Your task to perform on an android device: toggle notifications settings in the gmail app Image 0: 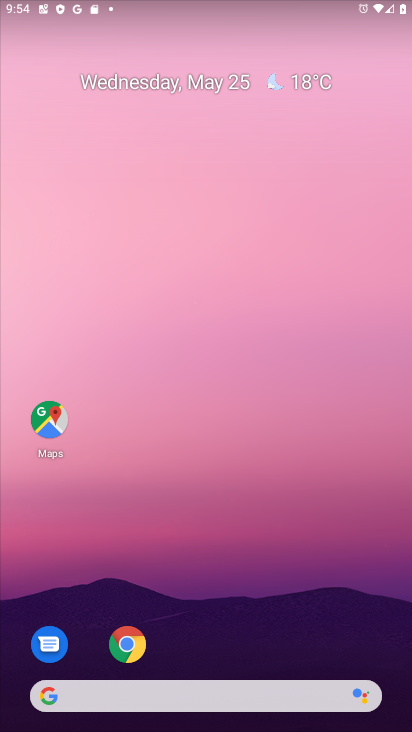
Step 0: drag from (216, 650) to (245, 165)
Your task to perform on an android device: toggle notifications settings in the gmail app Image 1: 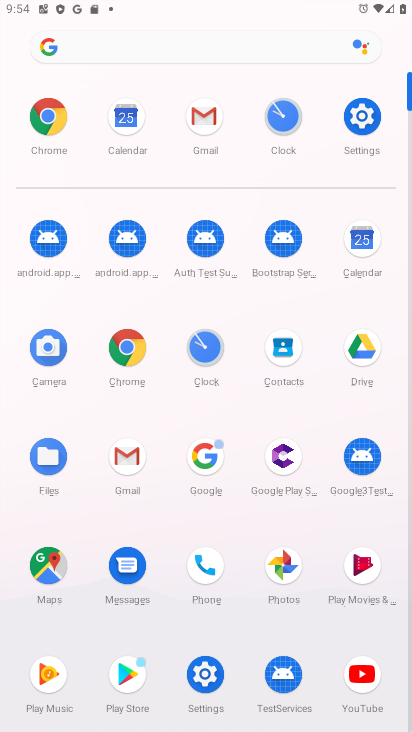
Step 1: click (121, 446)
Your task to perform on an android device: toggle notifications settings in the gmail app Image 2: 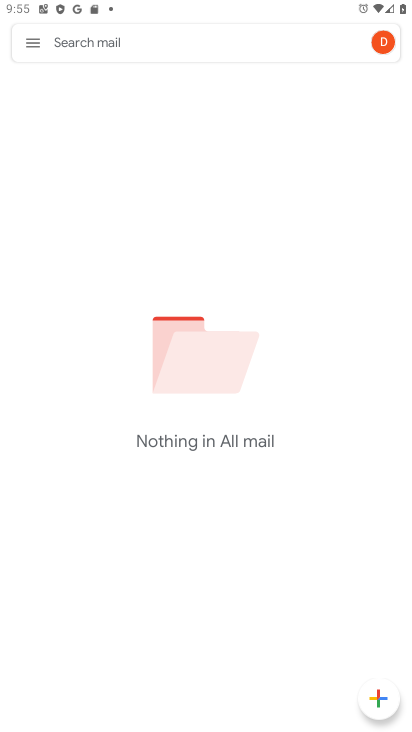
Step 2: click (28, 40)
Your task to perform on an android device: toggle notifications settings in the gmail app Image 3: 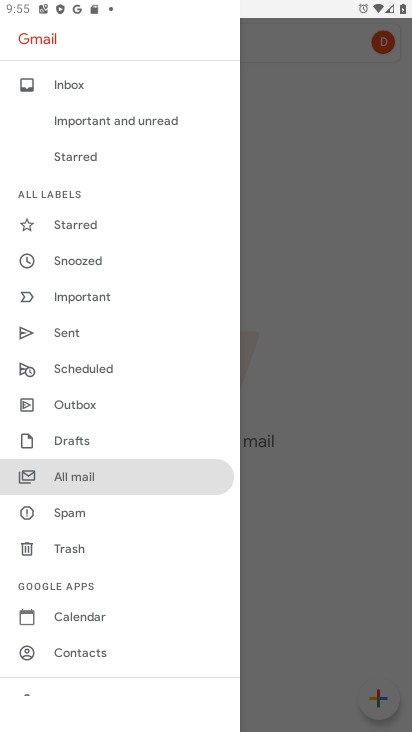
Step 3: drag from (93, 631) to (98, 181)
Your task to perform on an android device: toggle notifications settings in the gmail app Image 4: 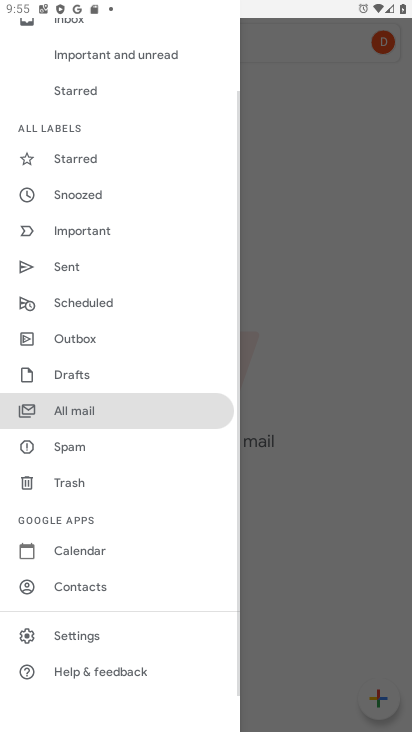
Step 4: click (100, 633)
Your task to perform on an android device: toggle notifications settings in the gmail app Image 5: 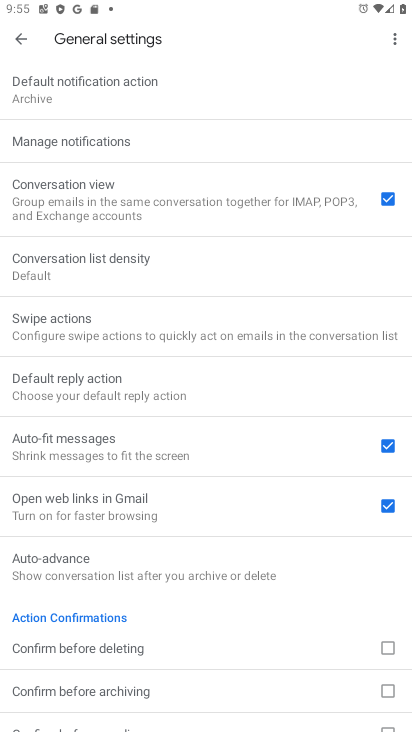
Step 5: click (144, 141)
Your task to perform on an android device: toggle notifications settings in the gmail app Image 6: 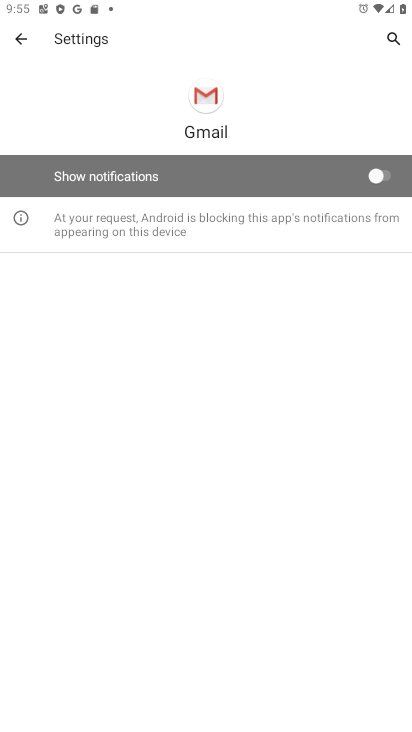
Step 6: click (383, 172)
Your task to perform on an android device: toggle notifications settings in the gmail app Image 7: 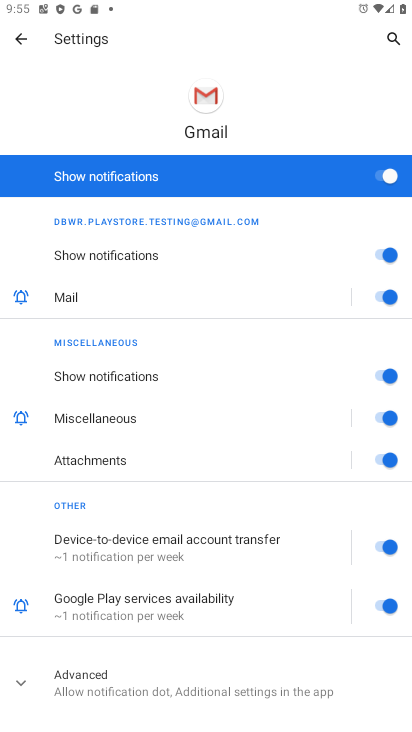
Step 7: task complete